Your task to perform on an android device: Play the last video I watched on Youtube Image 0: 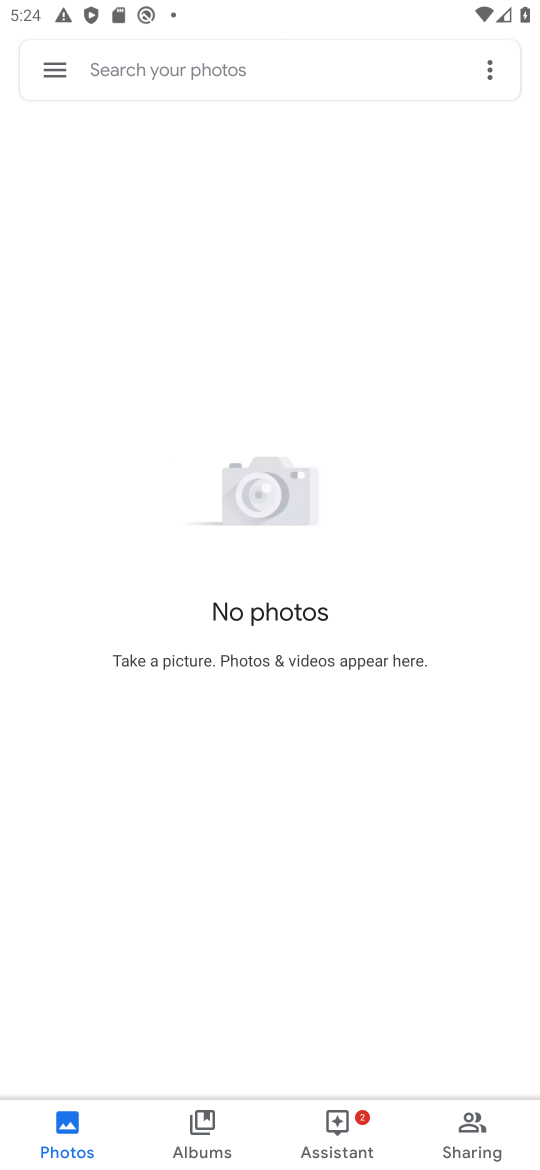
Step 0: press home button
Your task to perform on an android device: Play the last video I watched on Youtube Image 1: 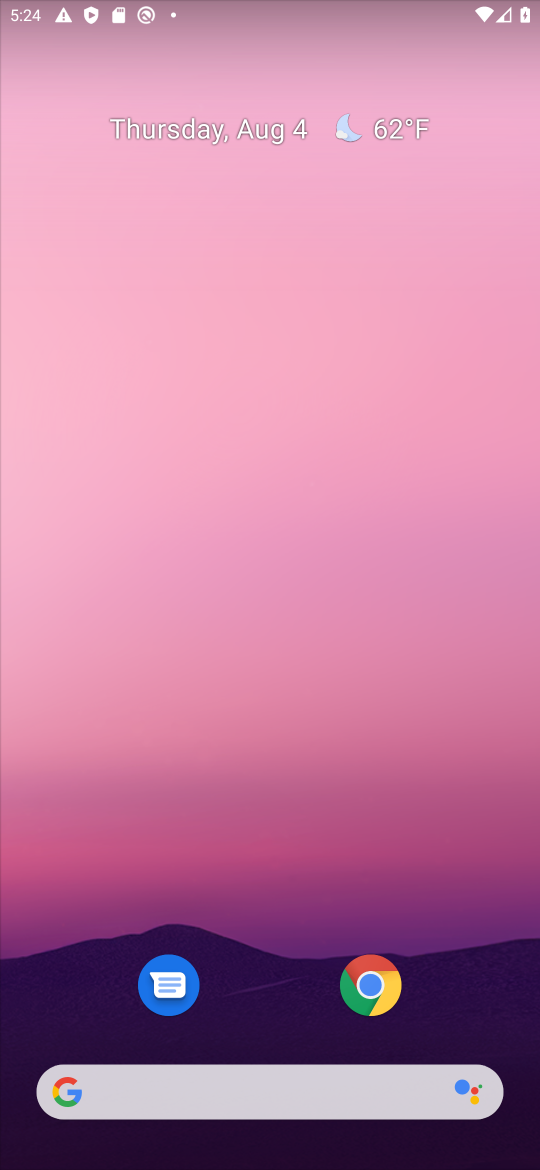
Step 1: drag from (303, 902) to (367, 217)
Your task to perform on an android device: Play the last video I watched on Youtube Image 2: 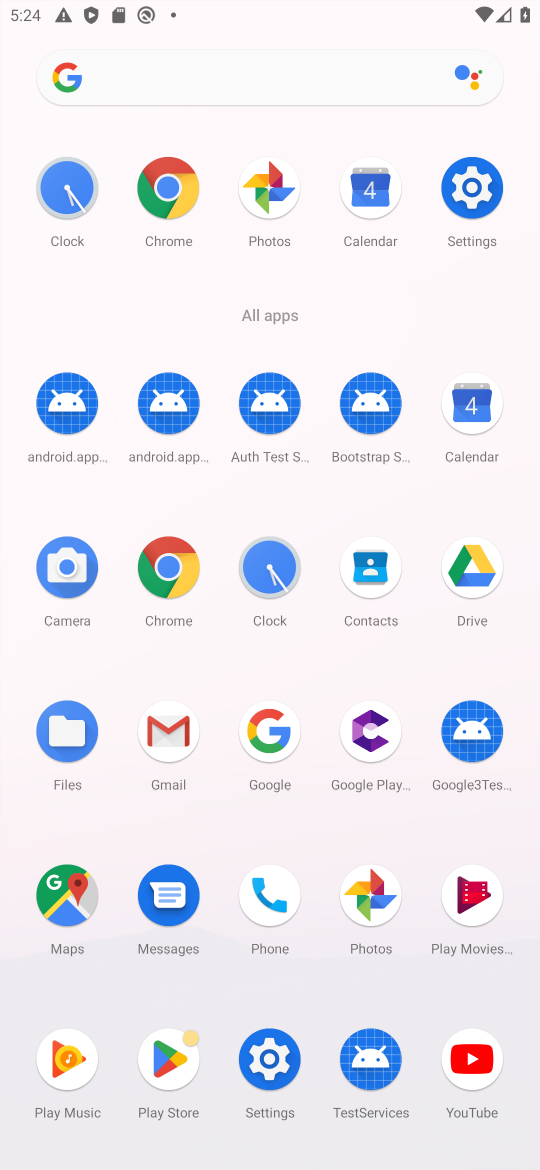
Step 2: click (473, 1068)
Your task to perform on an android device: Play the last video I watched on Youtube Image 3: 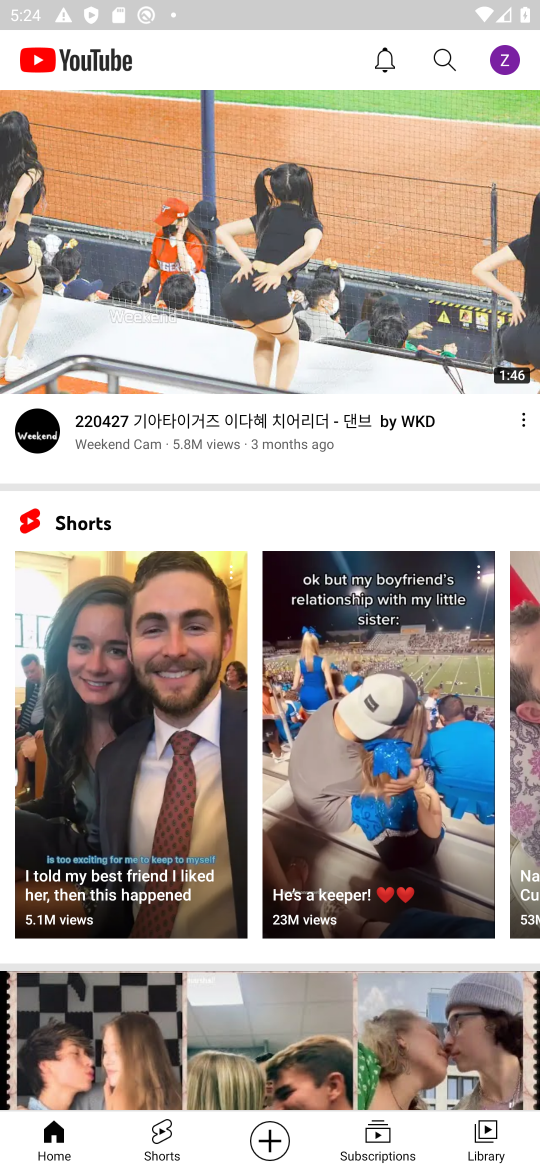
Step 3: click (480, 1133)
Your task to perform on an android device: Play the last video I watched on Youtube Image 4: 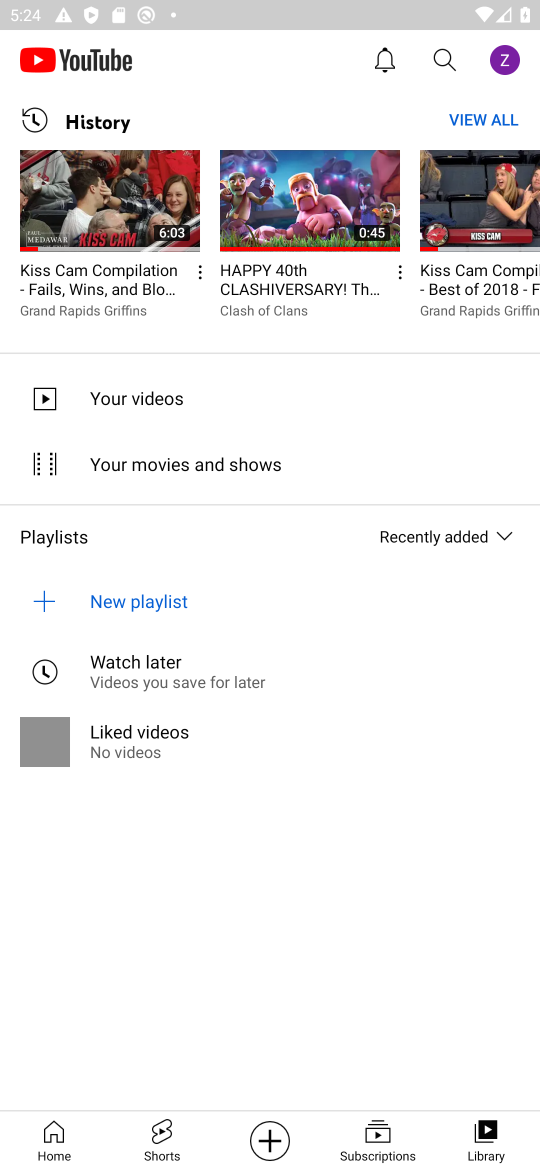
Step 4: click (105, 211)
Your task to perform on an android device: Play the last video I watched on Youtube Image 5: 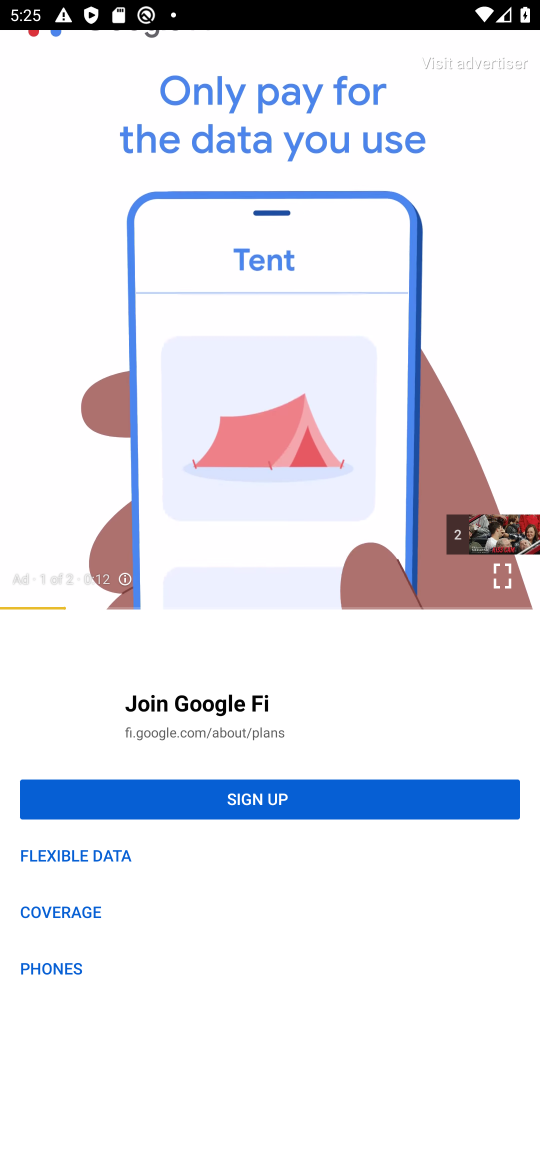
Step 5: task complete